Your task to perform on an android device: Open privacy settings Image 0: 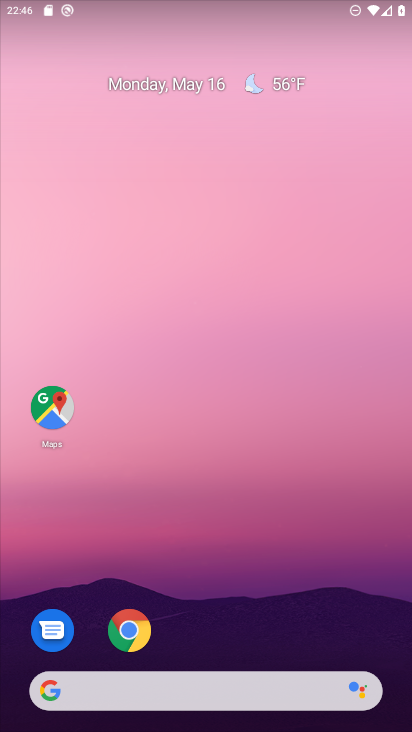
Step 0: drag from (200, 669) to (254, 208)
Your task to perform on an android device: Open privacy settings Image 1: 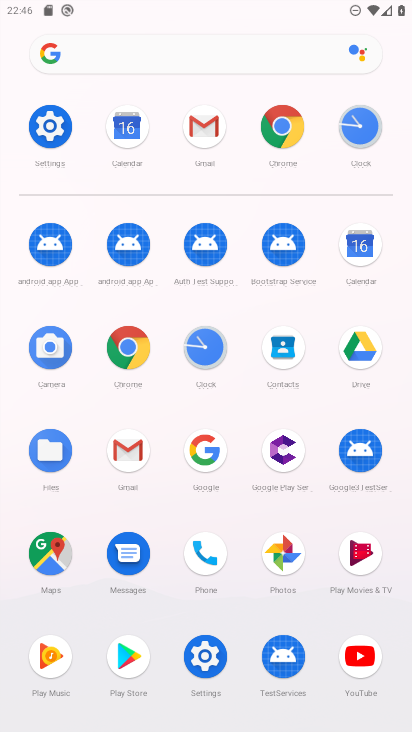
Step 1: click (215, 657)
Your task to perform on an android device: Open privacy settings Image 2: 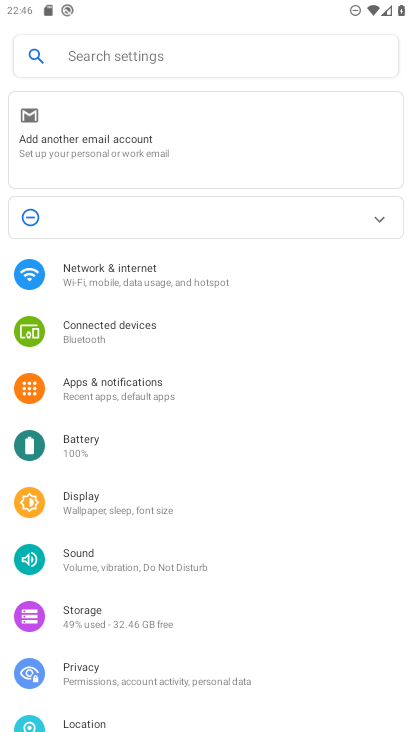
Step 2: drag from (122, 625) to (158, 305)
Your task to perform on an android device: Open privacy settings Image 3: 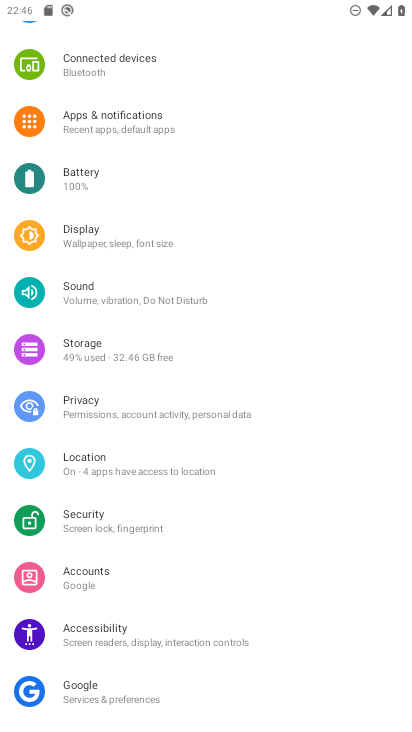
Step 3: click (103, 401)
Your task to perform on an android device: Open privacy settings Image 4: 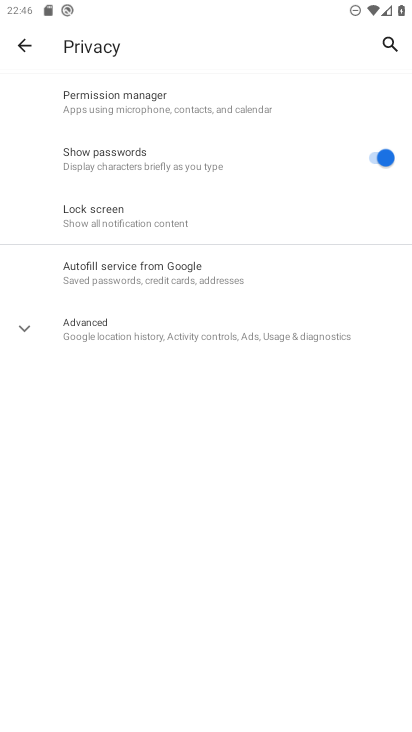
Step 4: task complete